Your task to perform on an android device: Open Chrome and go to settings Image 0: 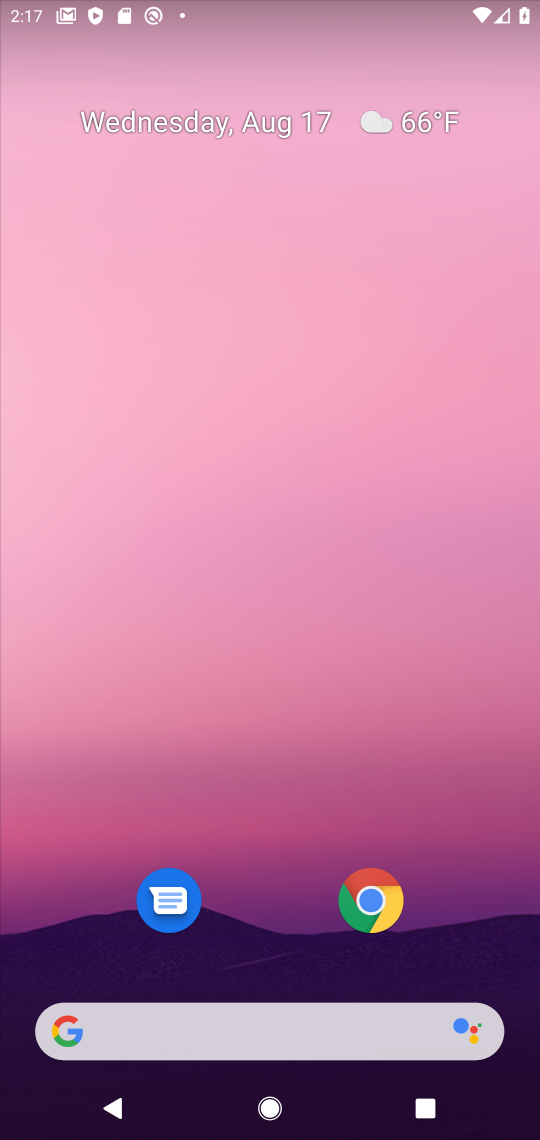
Step 0: click (371, 901)
Your task to perform on an android device: Open Chrome and go to settings Image 1: 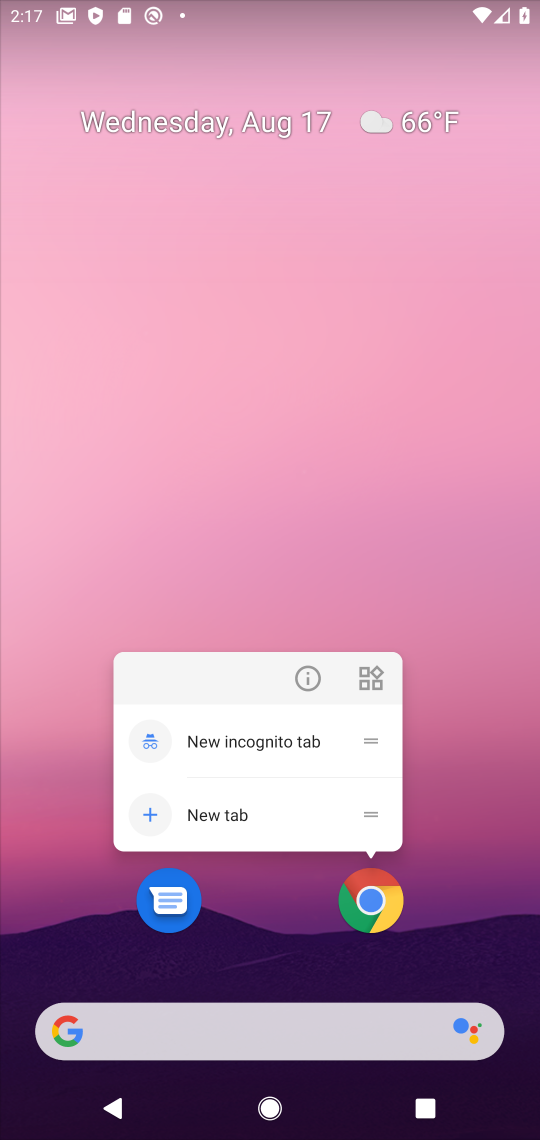
Step 1: click (371, 901)
Your task to perform on an android device: Open Chrome and go to settings Image 2: 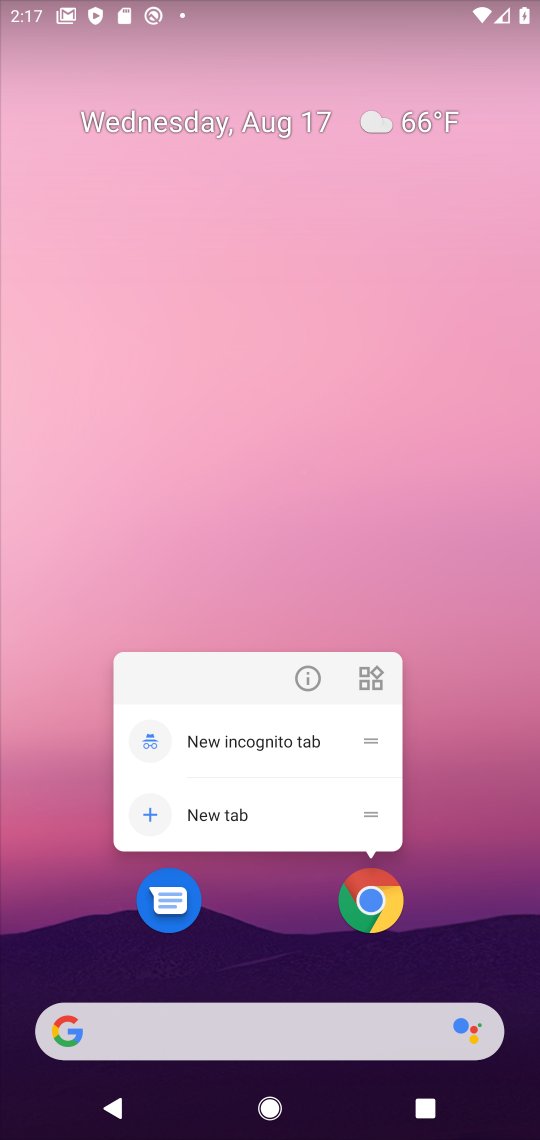
Step 2: click (369, 919)
Your task to perform on an android device: Open Chrome and go to settings Image 3: 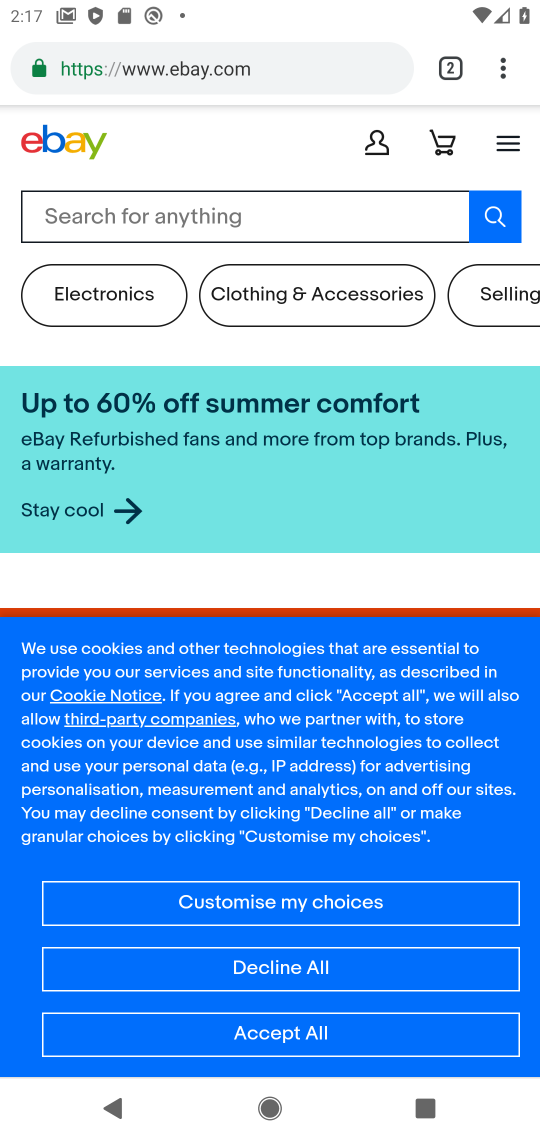
Step 3: task complete